Your task to perform on an android device: allow notifications from all sites in the chrome app Image 0: 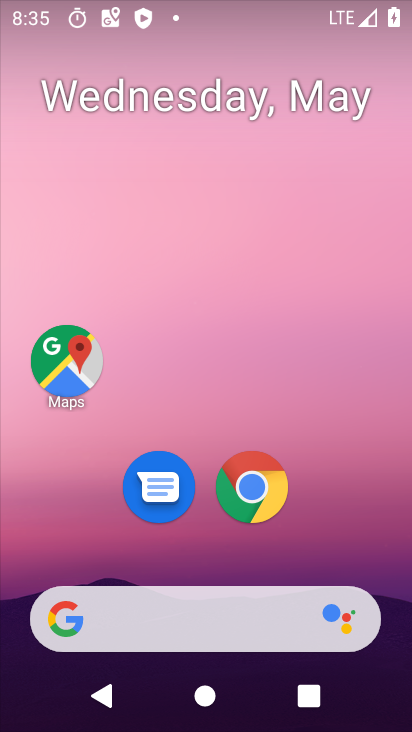
Step 0: click (258, 505)
Your task to perform on an android device: allow notifications from all sites in the chrome app Image 1: 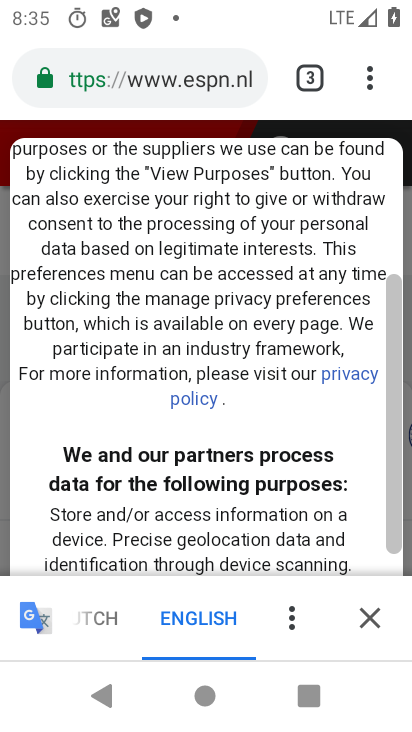
Step 1: drag from (362, 79) to (93, 544)
Your task to perform on an android device: allow notifications from all sites in the chrome app Image 2: 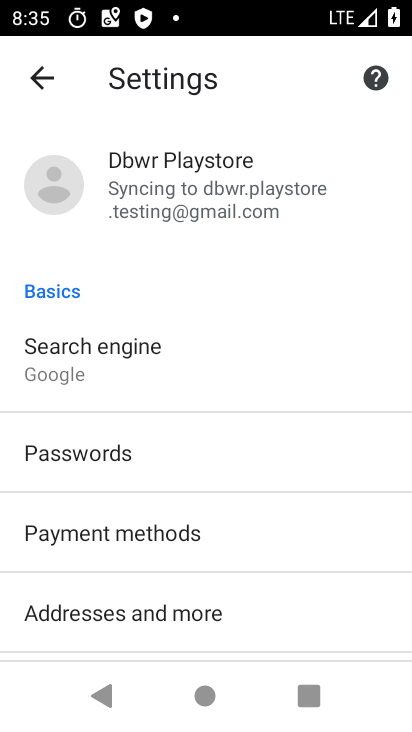
Step 2: drag from (188, 582) to (253, 405)
Your task to perform on an android device: allow notifications from all sites in the chrome app Image 3: 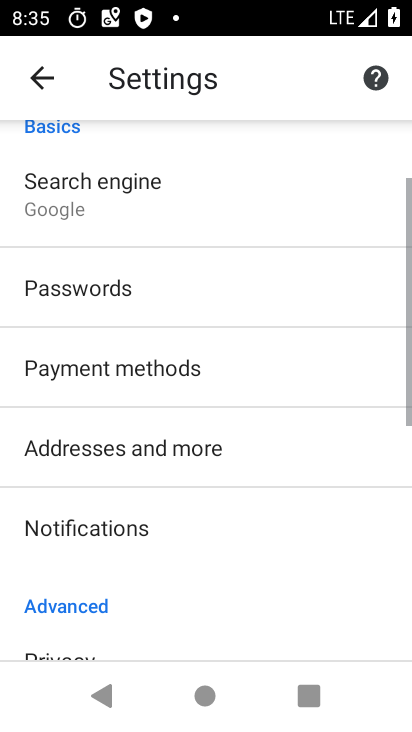
Step 3: drag from (230, 532) to (253, 308)
Your task to perform on an android device: allow notifications from all sites in the chrome app Image 4: 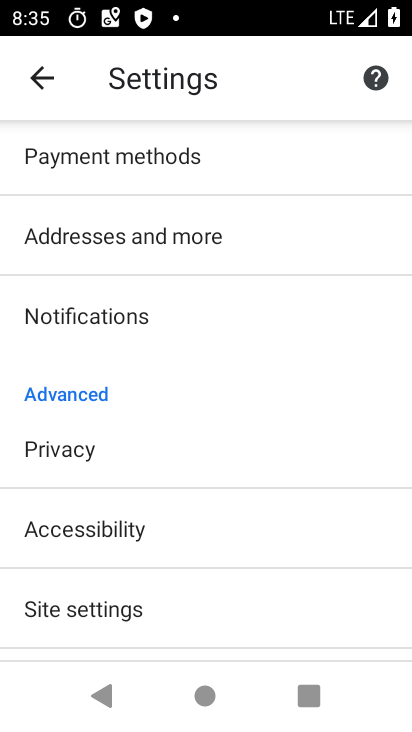
Step 4: drag from (186, 501) to (264, 285)
Your task to perform on an android device: allow notifications from all sites in the chrome app Image 5: 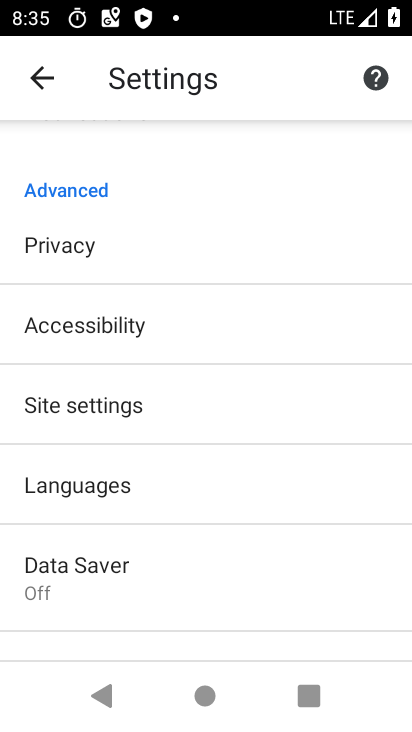
Step 5: click (123, 401)
Your task to perform on an android device: allow notifications from all sites in the chrome app Image 6: 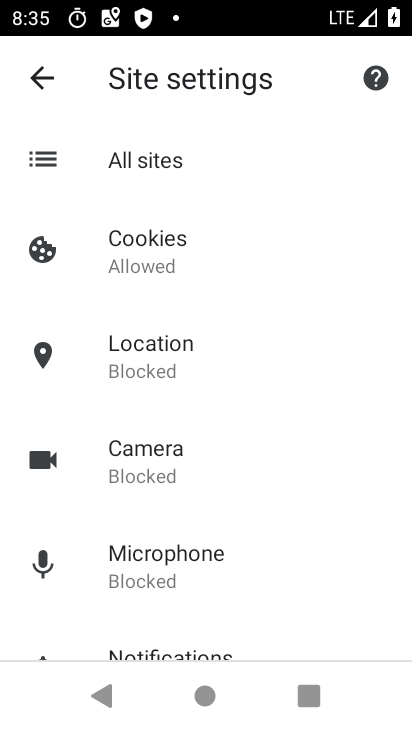
Step 6: click (234, 162)
Your task to perform on an android device: allow notifications from all sites in the chrome app Image 7: 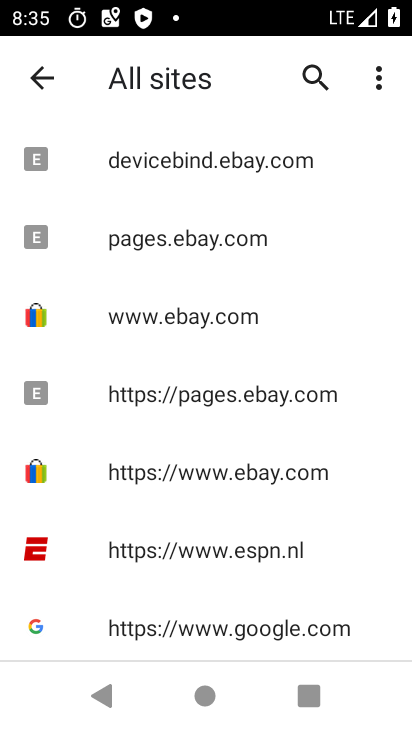
Step 7: drag from (251, 558) to (285, 329)
Your task to perform on an android device: allow notifications from all sites in the chrome app Image 8: 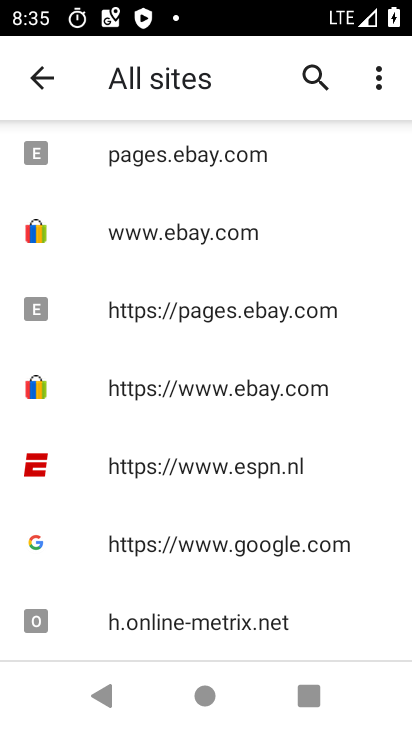
Step 8: drag from (250, 576) to (255, 343)
Your task to perform on an android device: allow notifications from all sites in the chrome app Image 9: 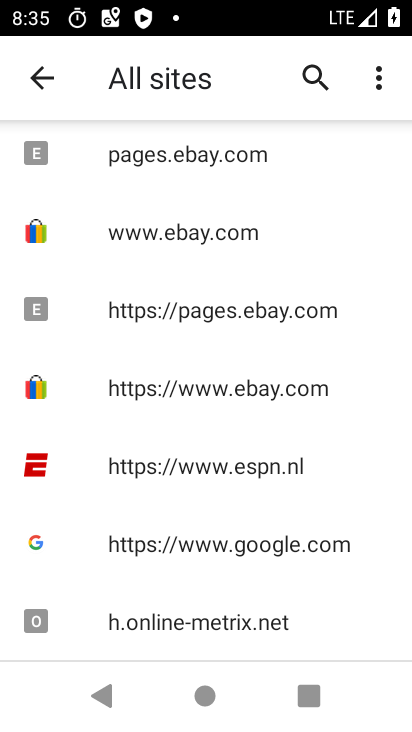
Step 9: drag from (243, 338) to (279, 312)
Your task to perform on an android device: allow notifications from all sites in the chrome app Image 10: 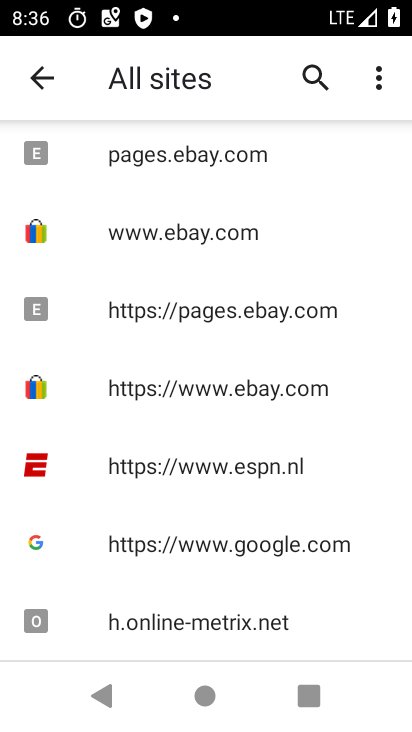
Step 10: click (269, 543)
Your task to perform on an android device: allow notifications from all sites in the chrome app Image 11: 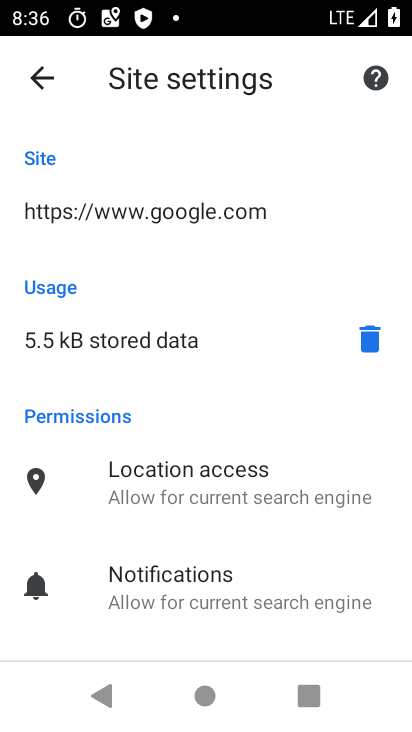
Step 11: drag from (208, 490) to (198, 363)
Your task to perform on an android device: allow notifications from all sites in the chrome app Image 12: 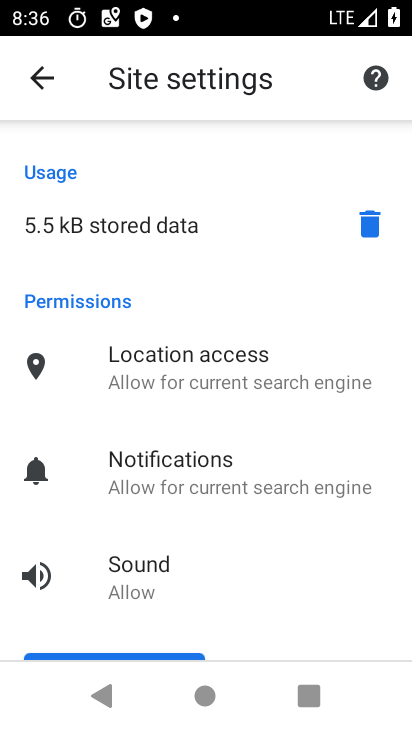
Step 12: click (182, 475)
Your task to perform on an android device: allow notifications from all sites in the chrome app Image 13: 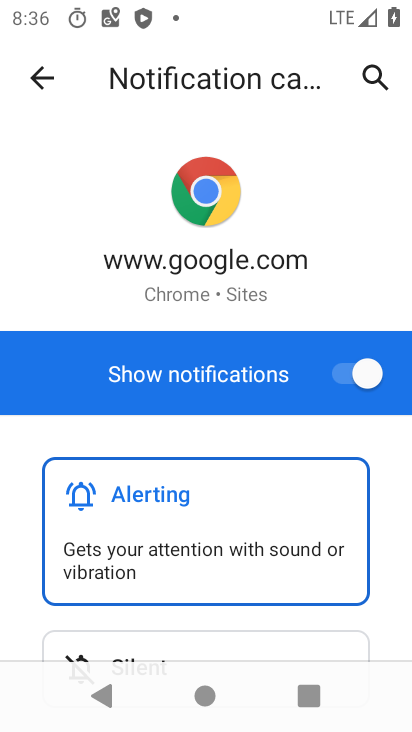
Step 13: click (342, 372)
Your task to perform on an android device: allow notifications from all sites in the chrome app Image 14: 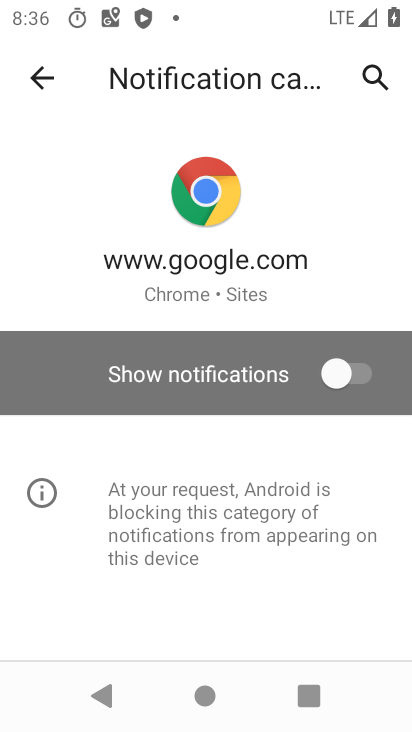
Step 14: click (366, 366)
Your task to perform on an android device: allow notifications from all sites in the chrome app Image 15: 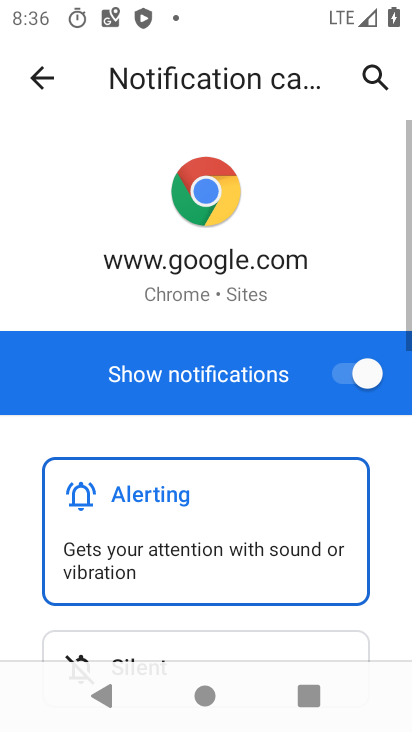
Step 15: task complete